Your task to perform on an android device: all mails in gmail Image 0: 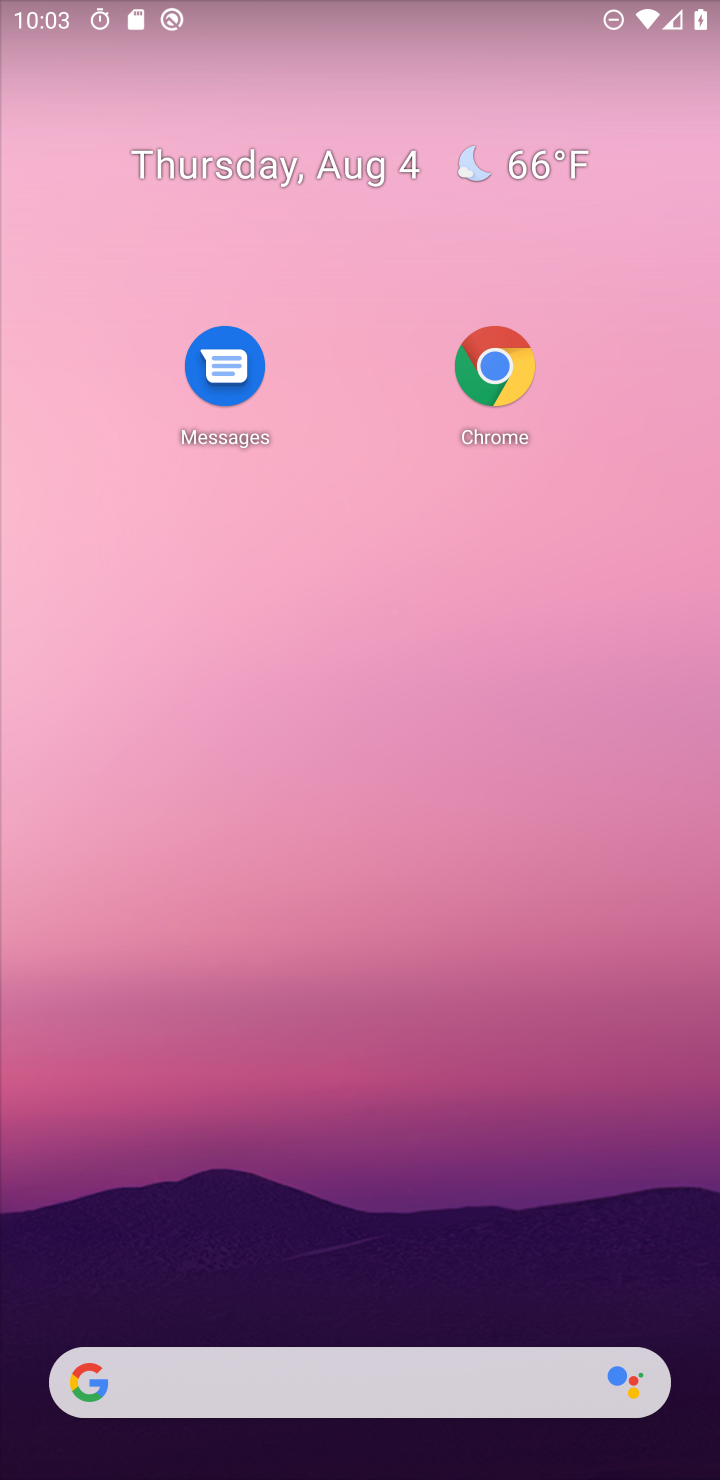
Step 0: press home button
Your task to perform on an android device: all mails in gmail Image 1: 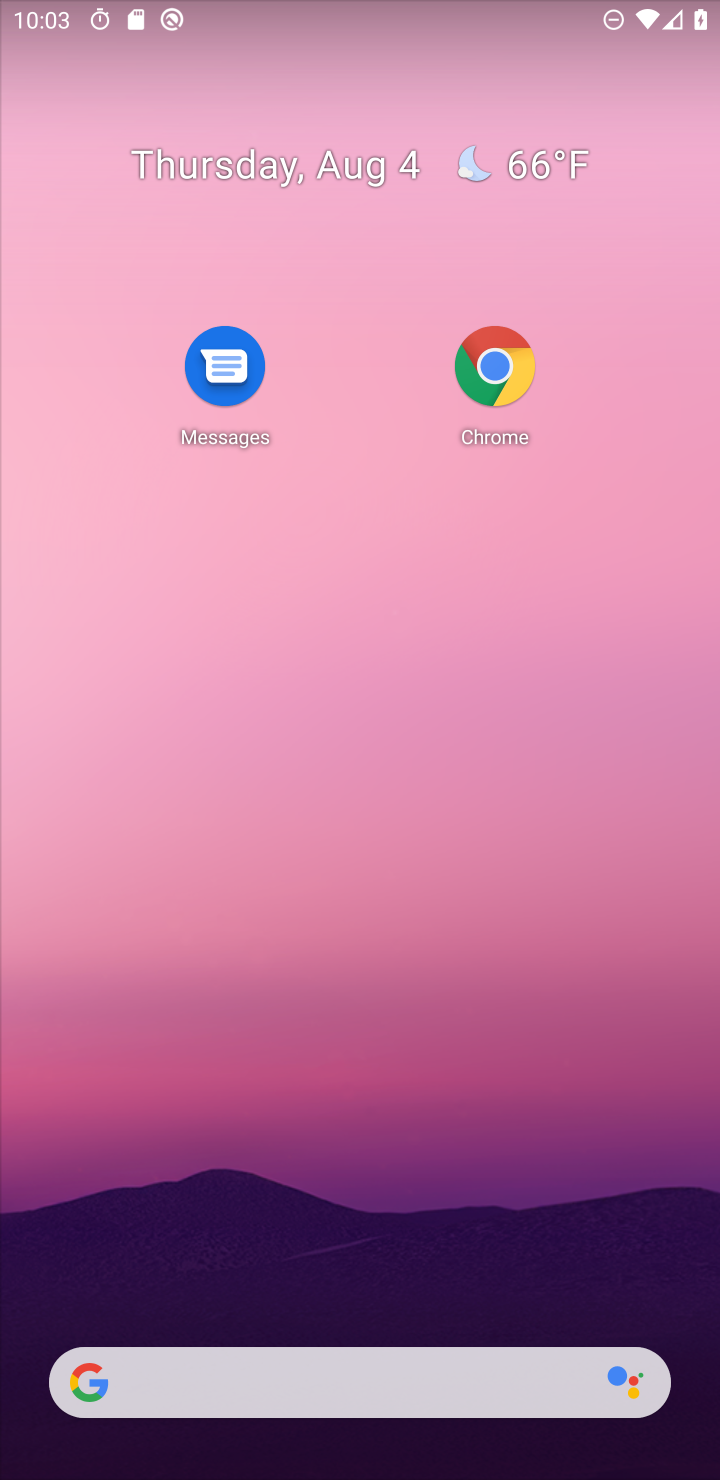
Step 1: drag from (406, 1418) to (447, 293)
Your task to perform on an android device: all mails in gmail Image 2: 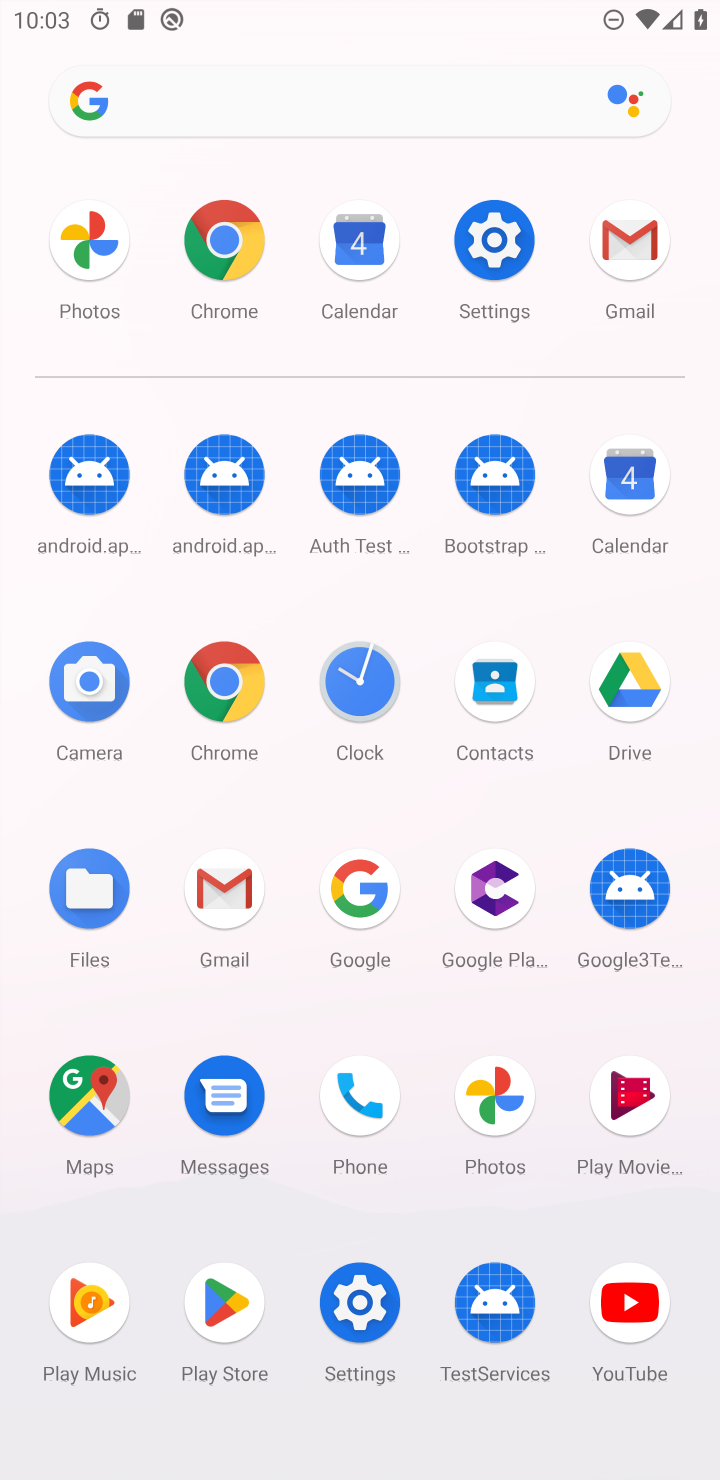
Step 2: click (643, 265)
Your task to perform on an android device: all mails in gmail Image 3: 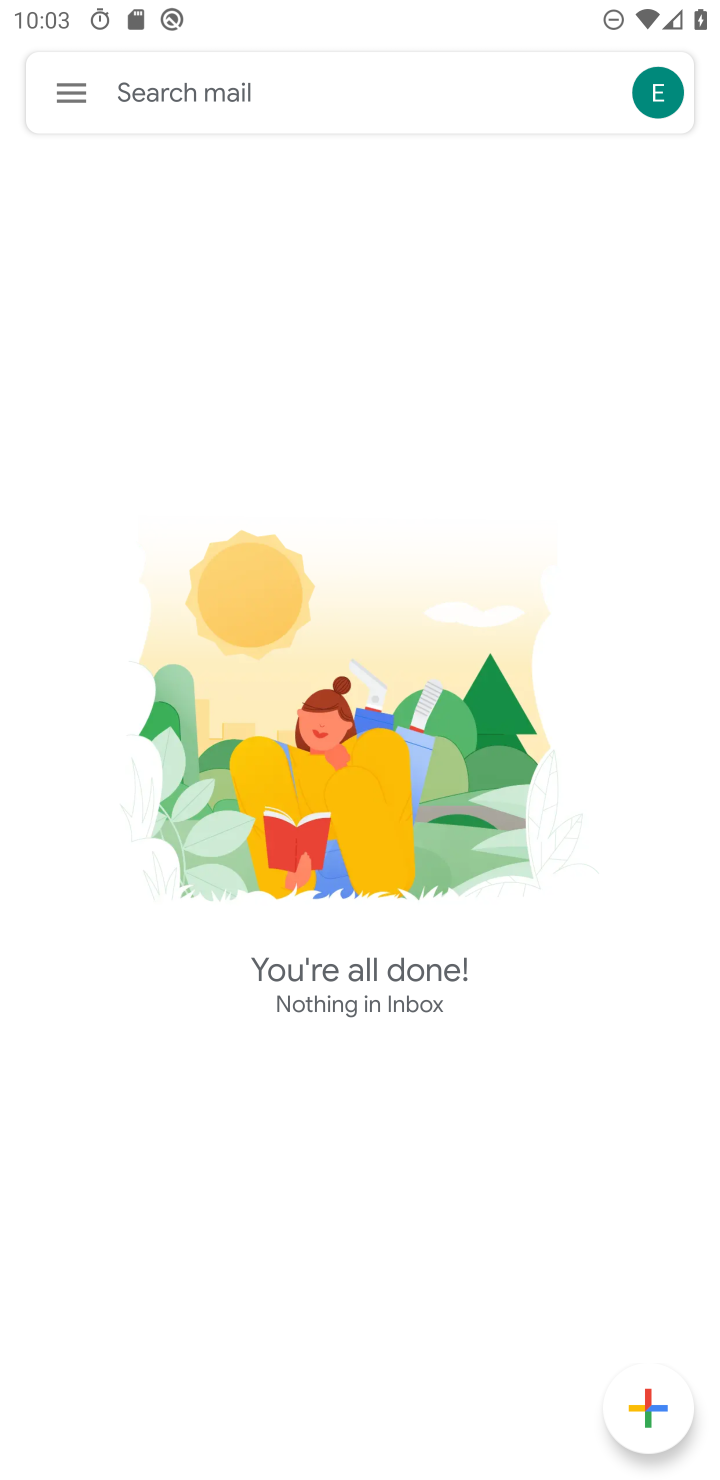
Step 3: click (74, 90)
Your task to perform on an android device: all mails in gmail Image 4: 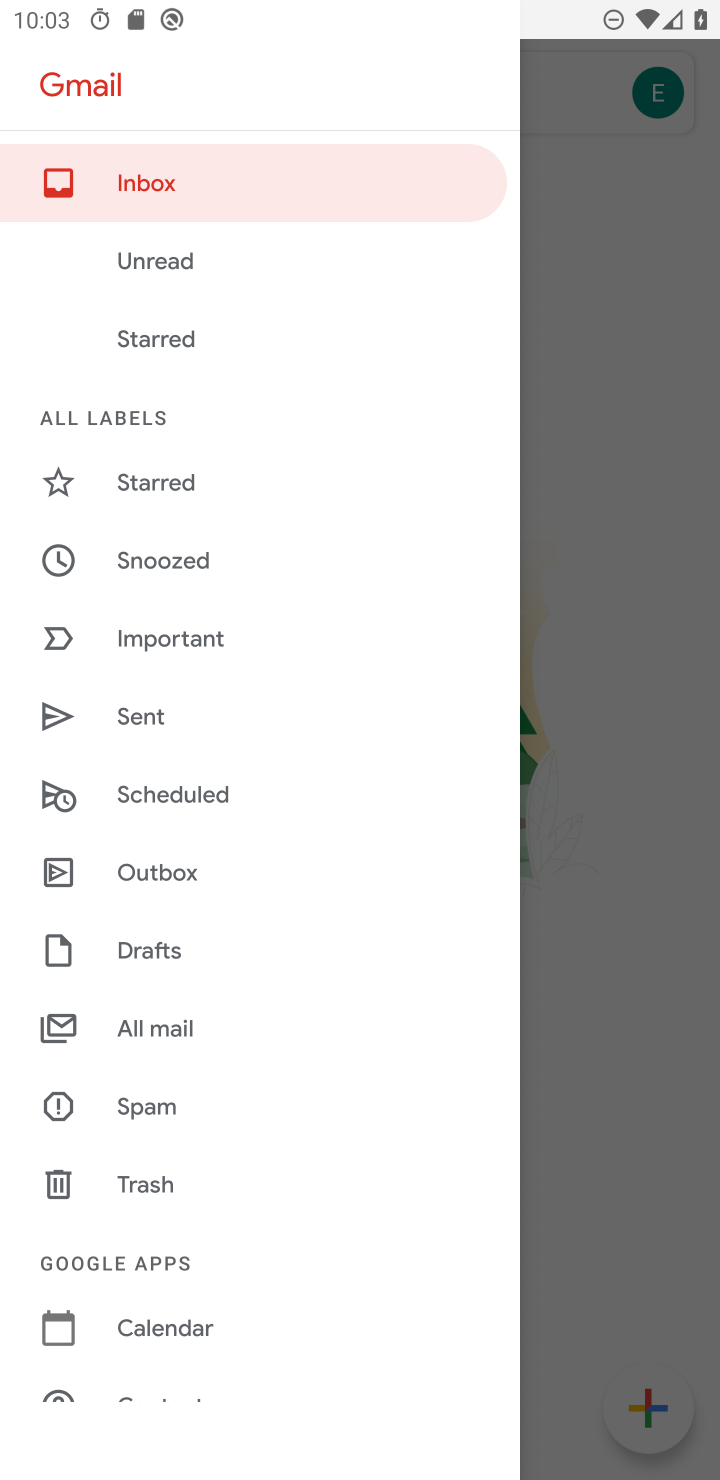
Step 4: drag from (212, 1319) to (178, 1160)
Your task to perform on an android device: all mails in gmail Image 5: 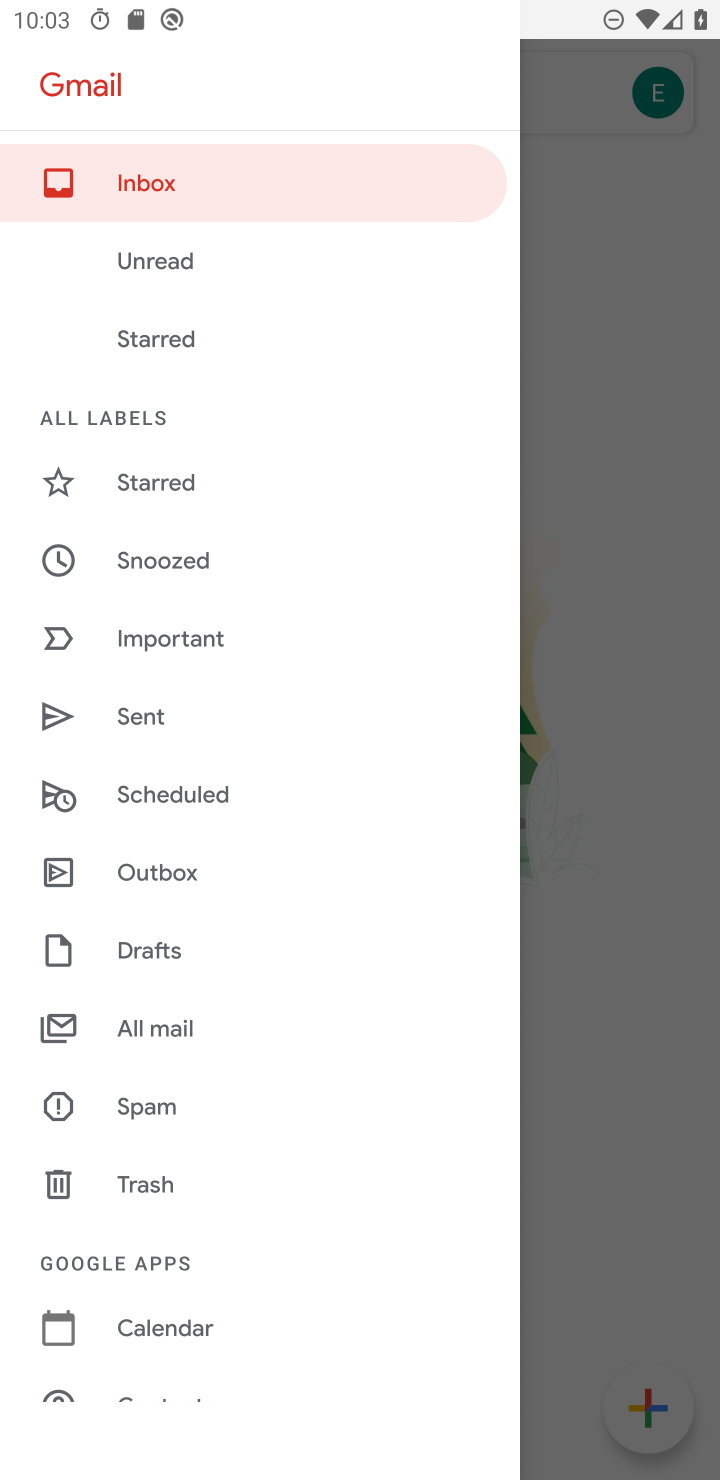
Step 5: click (156, 1027)
Your task to perform on an android device: all mails in gmail Image 6: 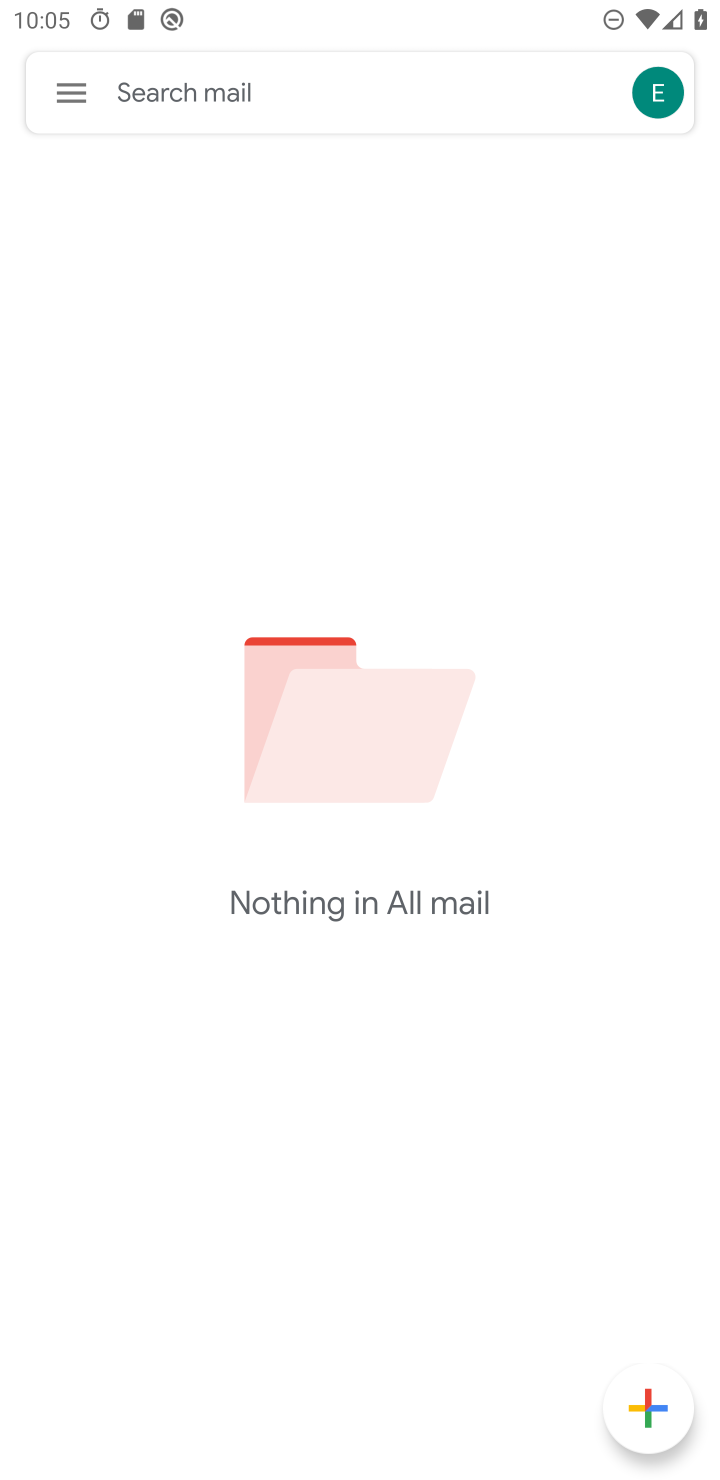
Step 6: task complete